Your task to perform on an android device: change the clock style Image 0: 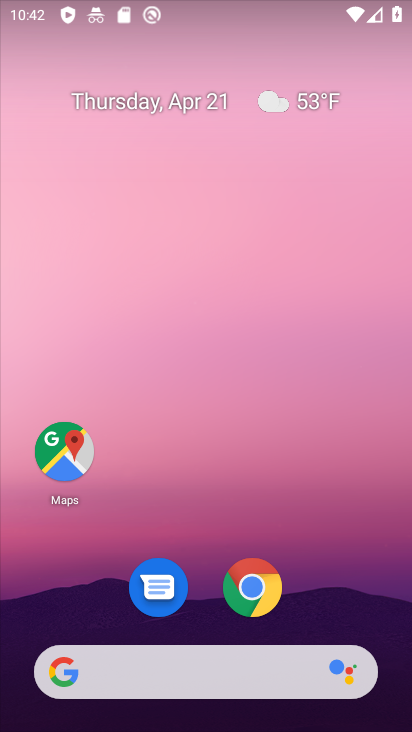
Step 0: drag from (302, 664) to (197, 13)
Your task to perform on an android device: change the clock style Image 1: 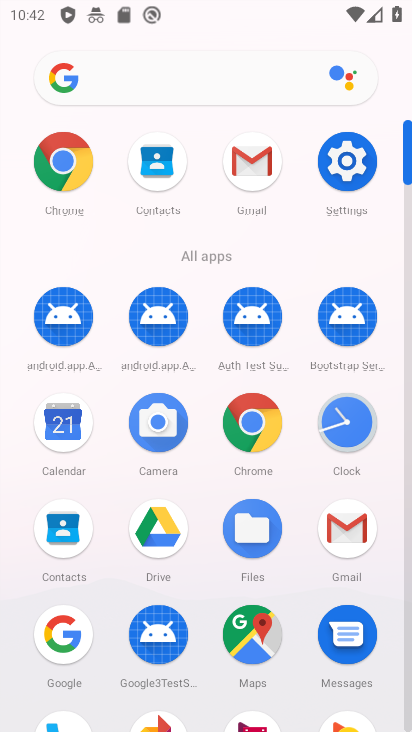
Step 1: click (359, 427)
Your task to perform on an android device: change the clock style Image 2: 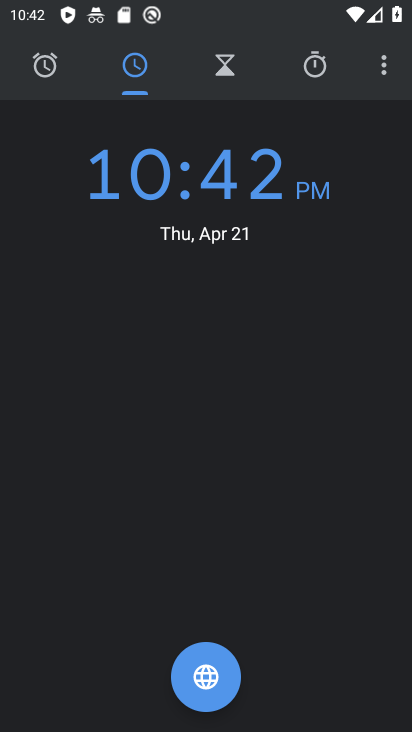
Step 2: click (381, 75)
Your task to perform on an android device: change the clock style Image 3: 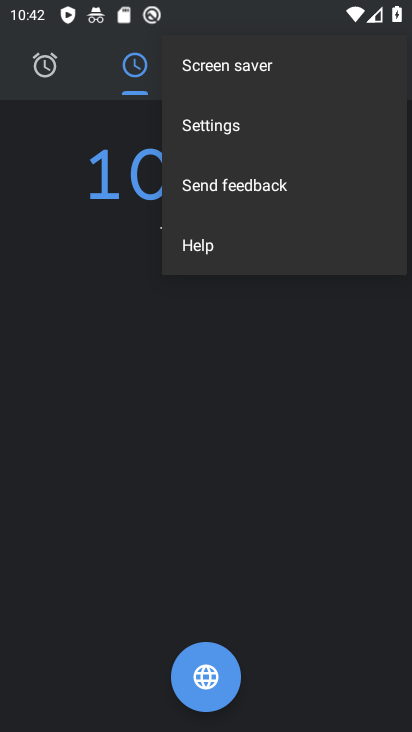
Step 3: click (275, 120)
Your task to perform on an android device: change the clock style Image 4: 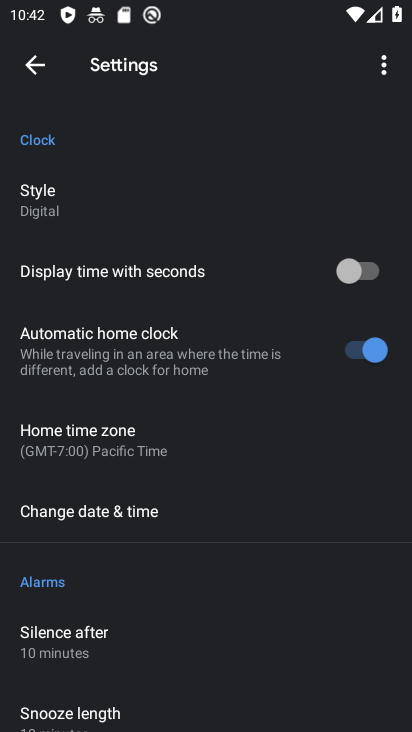
Step 4: click (100, 186)
Your task to perform on an android device: change the clock style Image 5: 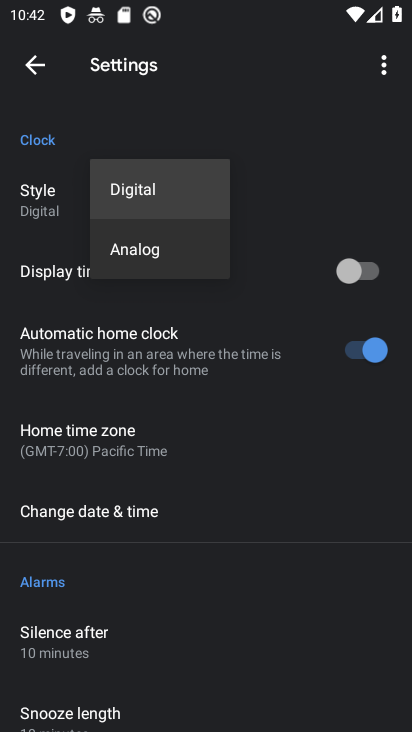
Step 5: click (149, 248)
Your task to perform on an android device: change the clock style Image 6: 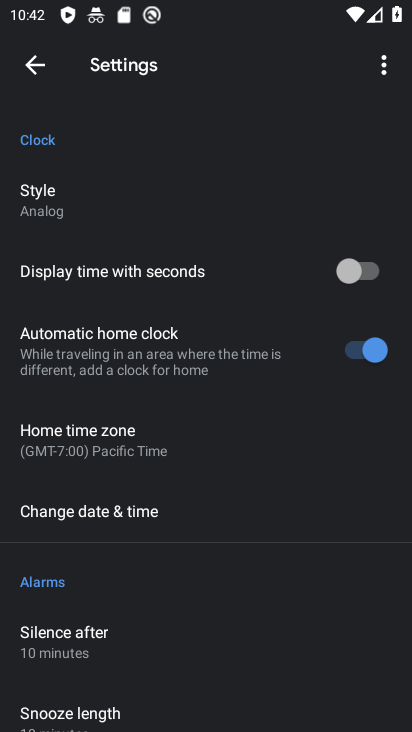
Step 6: task complete